Your task to perform on an android device: toggle javascript in the chrome app Image 0: 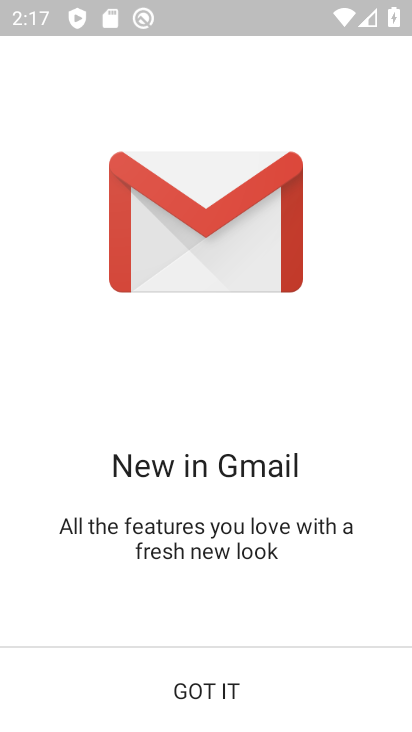
Step 0: press home button
Your task to perform on an android device: toggle javascript in the chrome app Image 1: 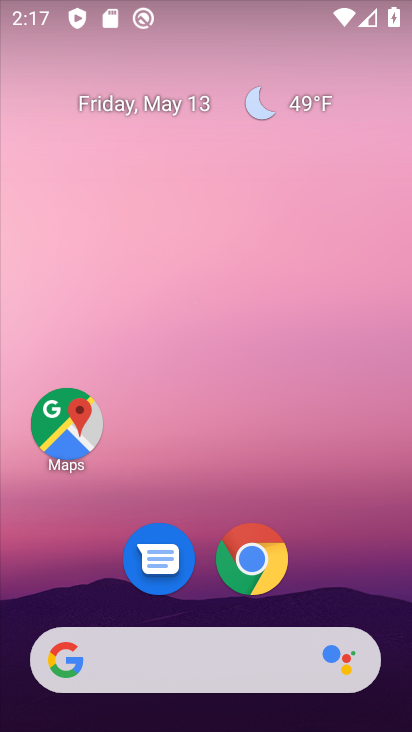
Step 1: click (248, 555)
Your task to perform on an android device: toggle javascript in the chrome app Image 2: 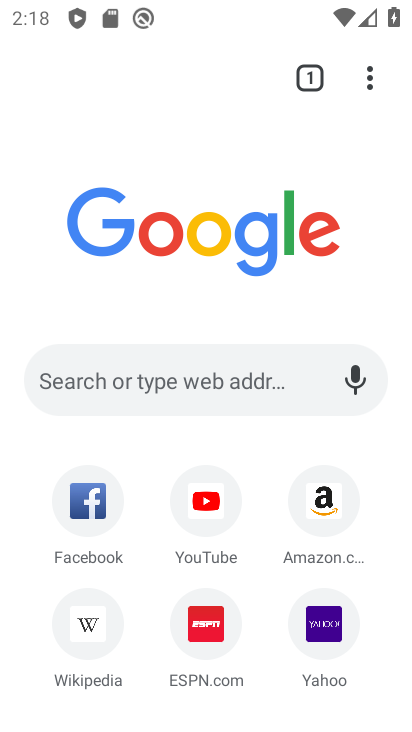
Step 2: click (372, 84)
Your task to perform on an android device: toggle javascript in the chrome app Image 3: 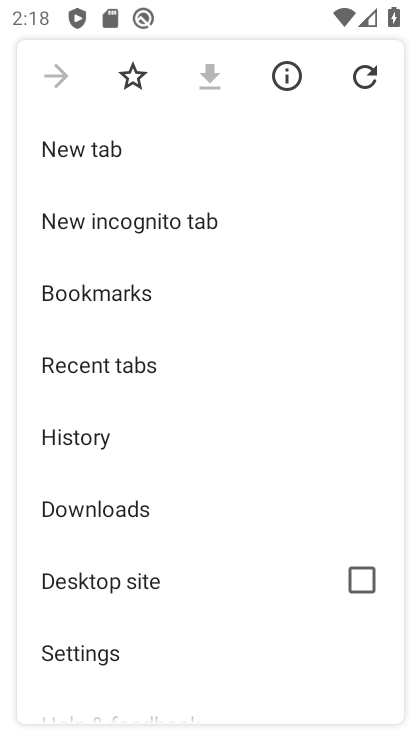
Step 3: click (113, 656)
Your task to perform on an android device: toggle javascript in the chrome app Image 4: 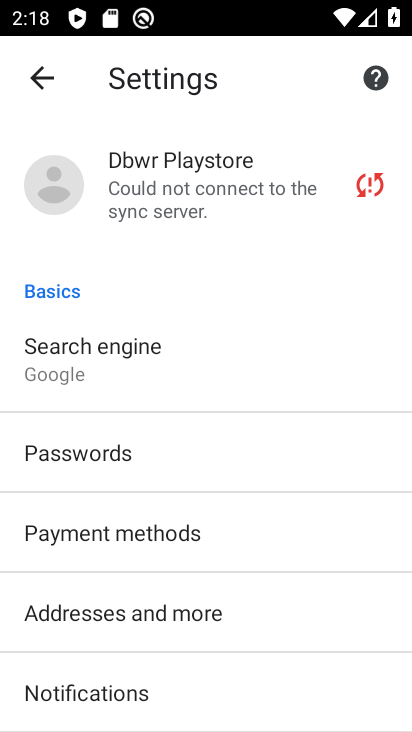
Step 4: drag from (298, 650) to (226, 136)
Your task to perform on an android device: toggle javascript in the chrome app Image 5: 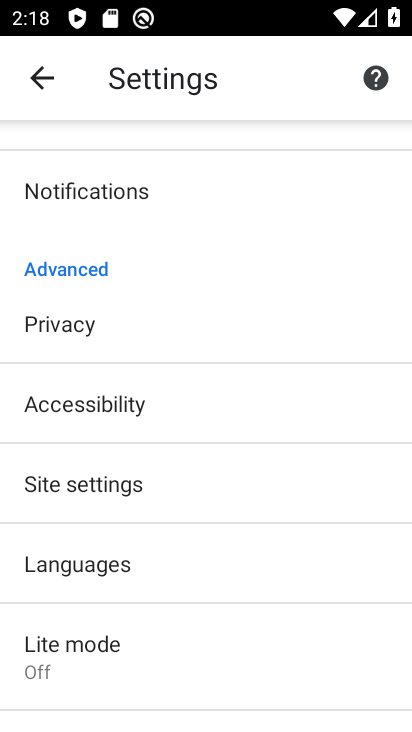
Step 5: click (87, 483)
Your task to perform on an android device: toggle javascript in the chrome app Image 6: 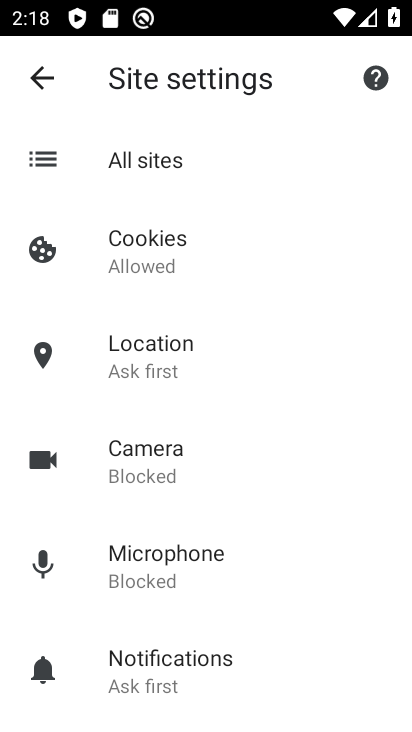
Step 6: drag from (240, 658) to (235, 52)
Your task to perform on an android device: toggle javascript in the chrome app Image 7: 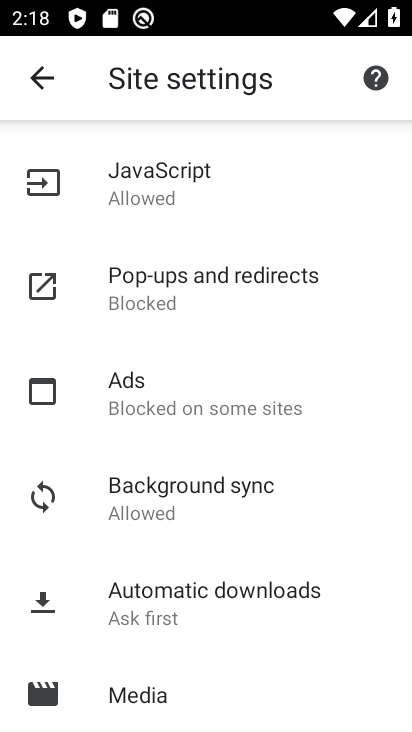
Step 7: click (143, 178)
Your task to perform on an android device: toggle javascript in the chrome app Image 8: 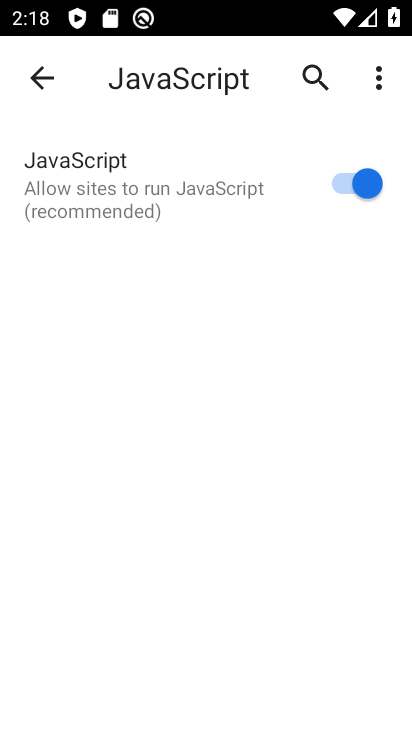
Step 8: click (338, 195)
Your task to perform on an android device: toggle javascript in the chrome app Image 9: 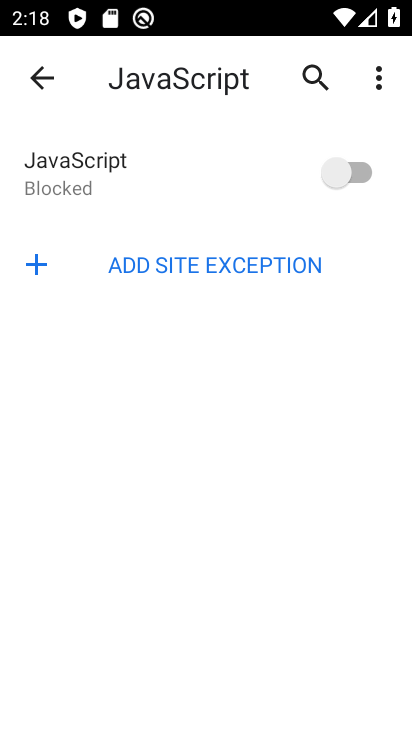
Step 9: task complete